Your task to perform on an android device: change the clock display to digital Image 0: 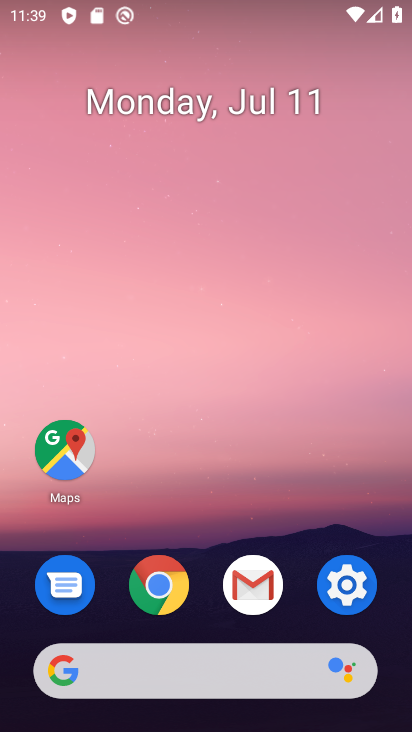
Step 0: drag from (263, 682) to (254, 268)
Your task to perform on an android device: change the clock display to digital Image 1: 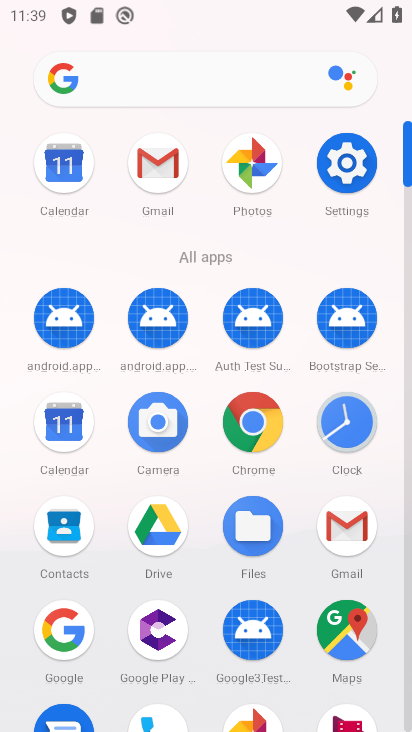
Step 1: click (322, 422)
Your task to perform on an android device: change the clock display to digital Image 2: 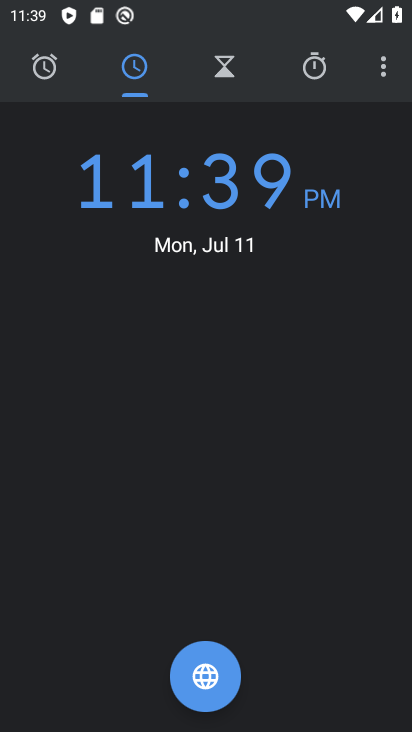
Step 2: click (373, 73)
Your task to perform on an android device: change the clock display to digital Image 3: 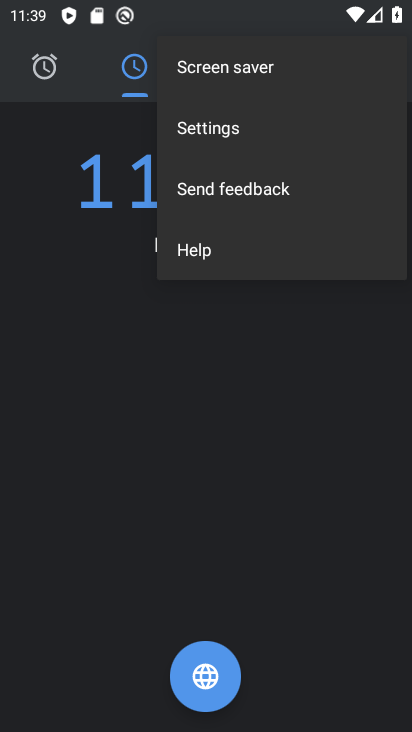
Step 3: click (251, 137)
Your task to perform on an android device: change the clock display to digital Image 4: 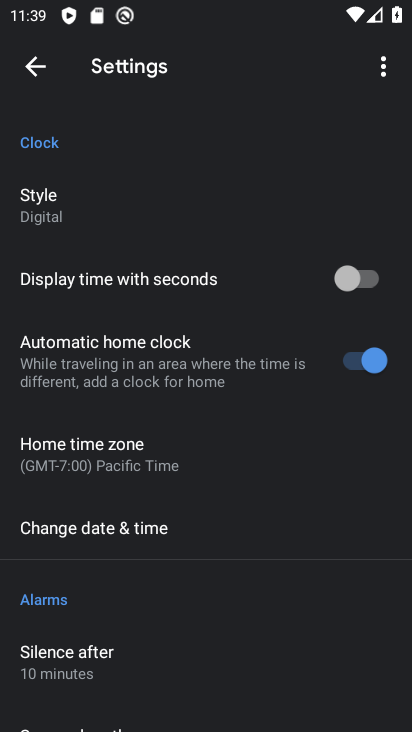
Step 4: click (118, 215)
Your task to perform on an android device: change the clock display to digital Image 5: 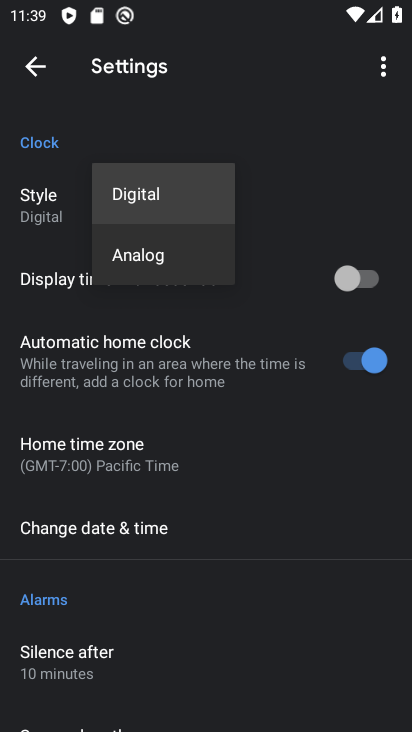
Step 5: click (155, 190)
Your task to perform on an android device: change the clock display to digital Image 6: 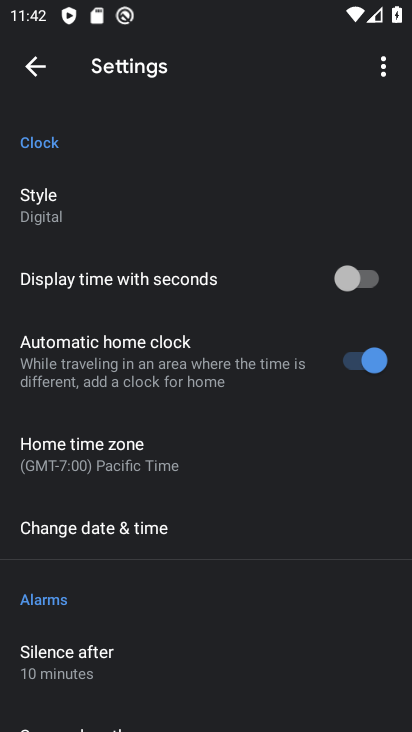
Step 6: task complete